Your task to perform on an android device: open app "Pinterest" Image 0: 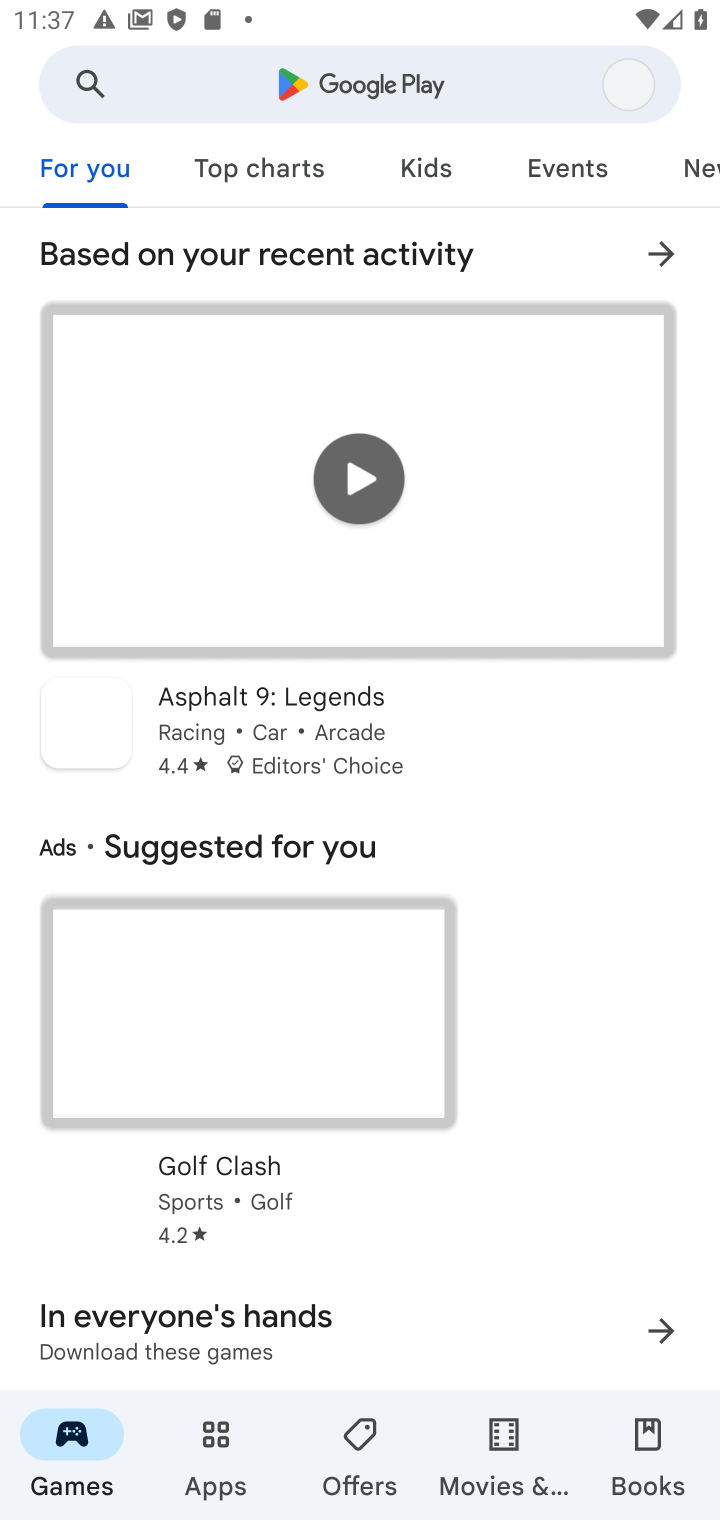
Step 0: click (380, 67)
Your task to perform on an android device: open app "Pinterest" Image 1: 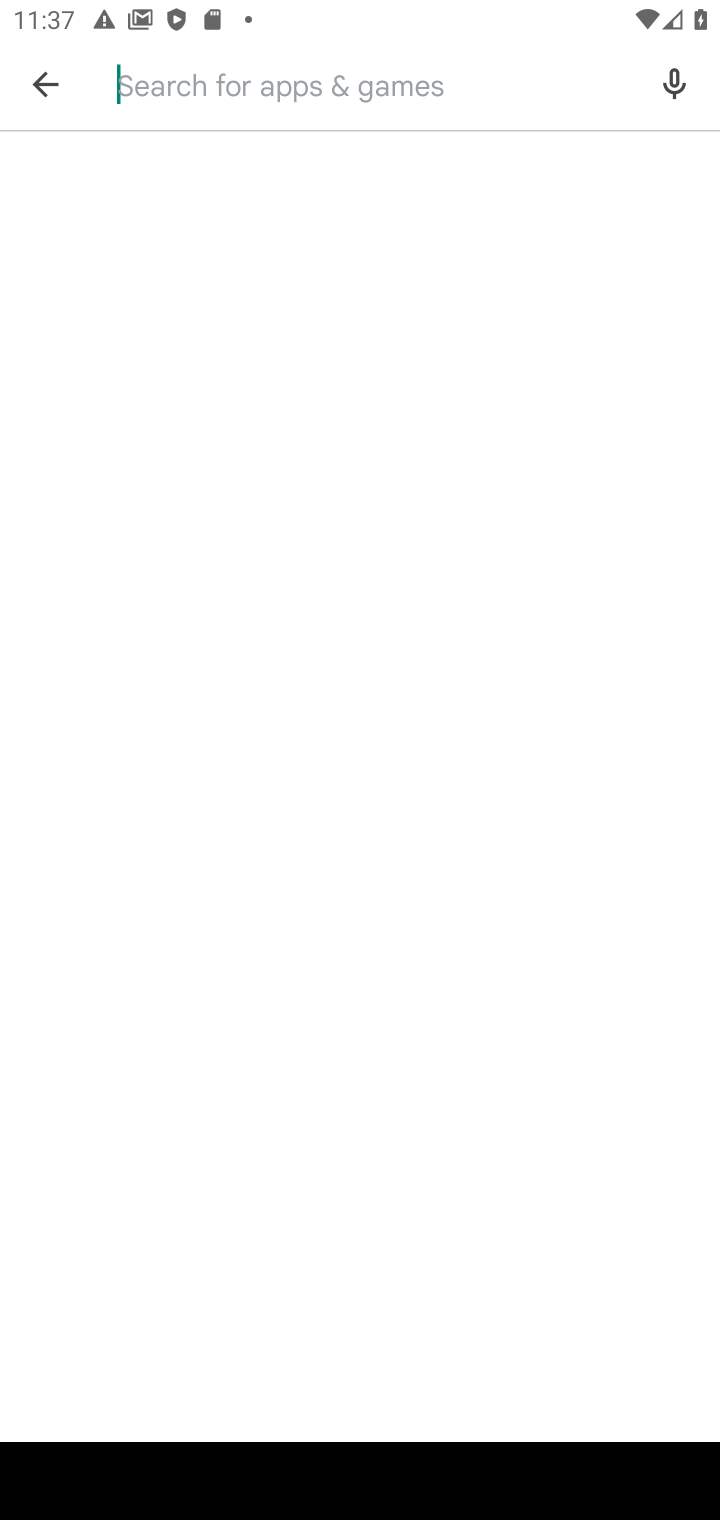
Step 1: click (358, 67)
Your task to perform on an android device: open app "Pinterest" Image 2: 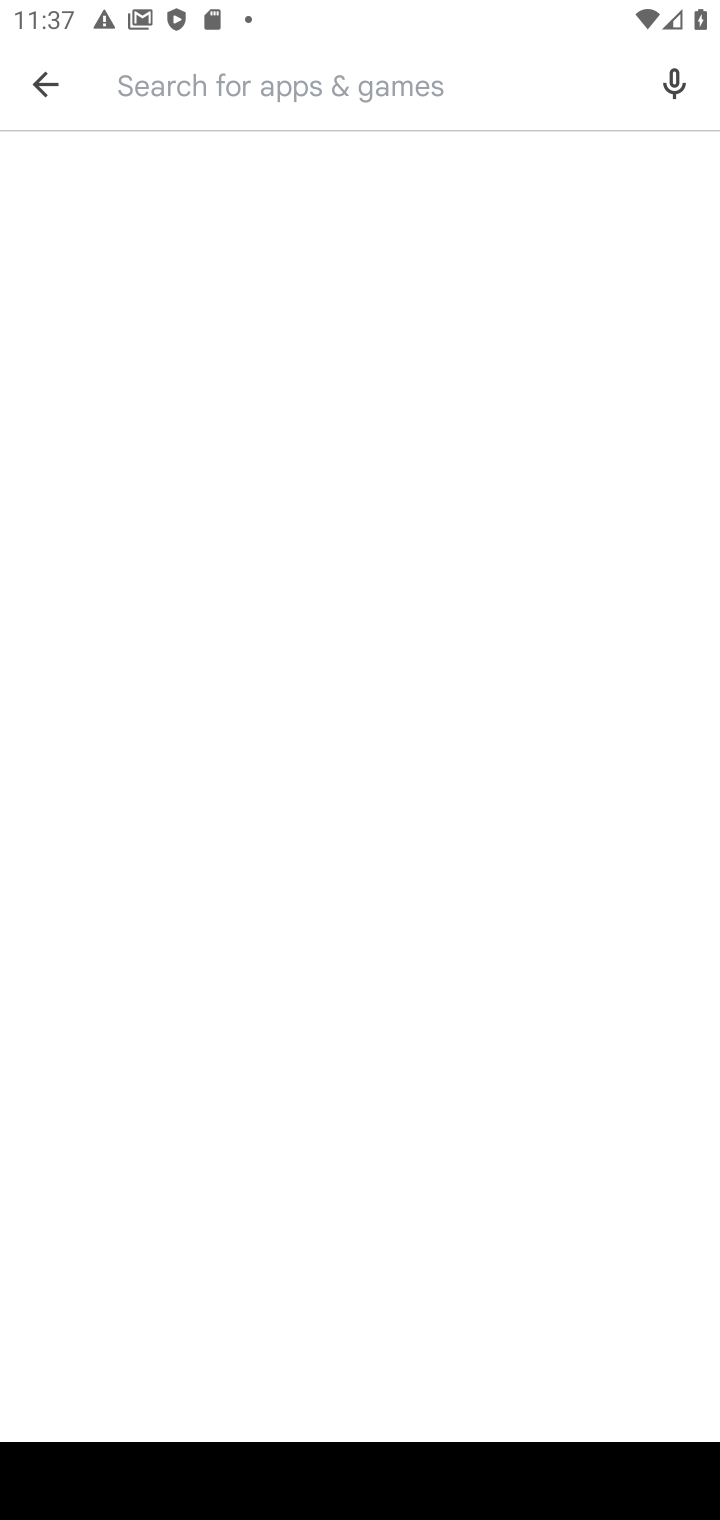
Step 2: click (278, 59)
Your task to perform on an android device: open app "Pinterest" Image 3: 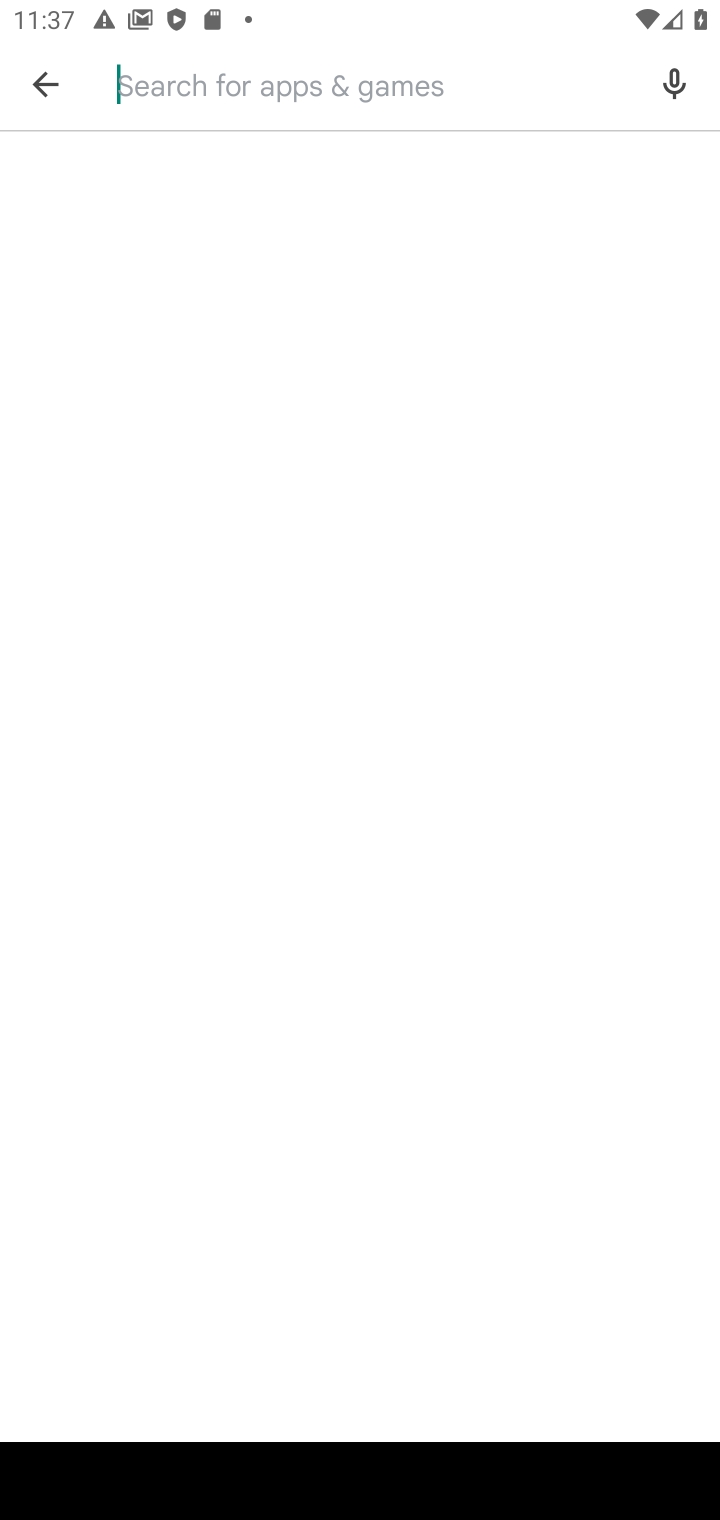
Step 3: type "Pinterest"
Your task to perform on an android device: open app "Pinterest" Image 4: 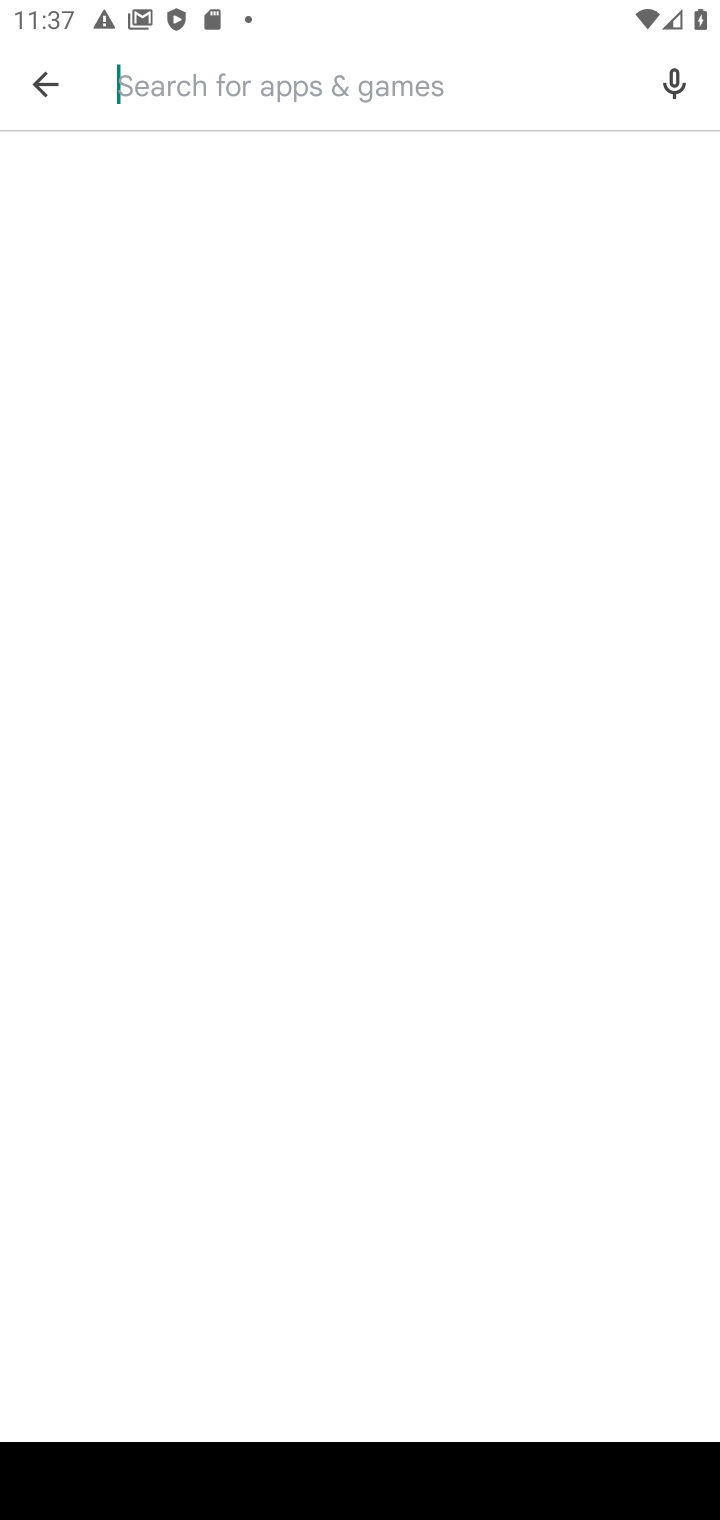
Step 4: click (311, 757)
Your task to perform on an android device: open app "Pinterest" Image 5: 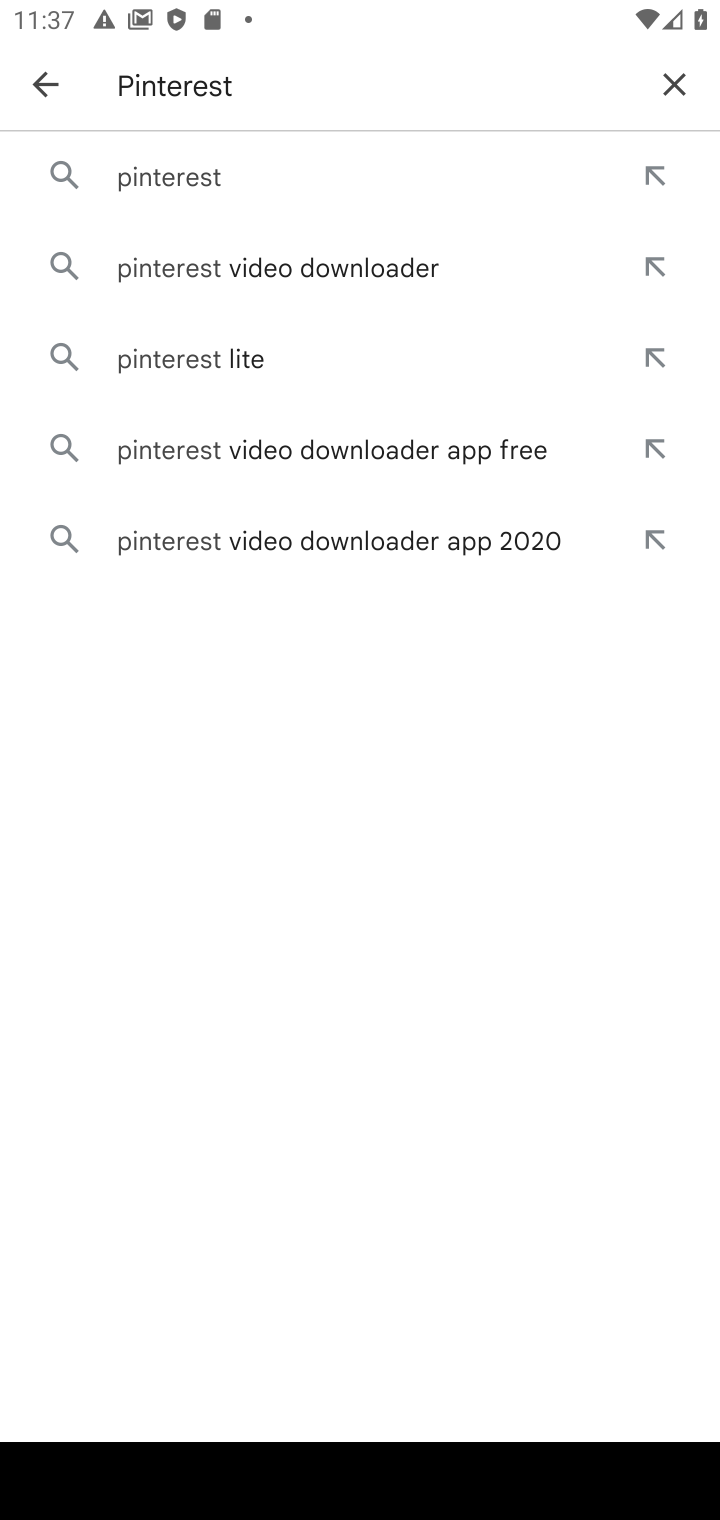
Step 5: click (210, 172)
Your task to perform on an android device: open app "Pinterest" Image 6: 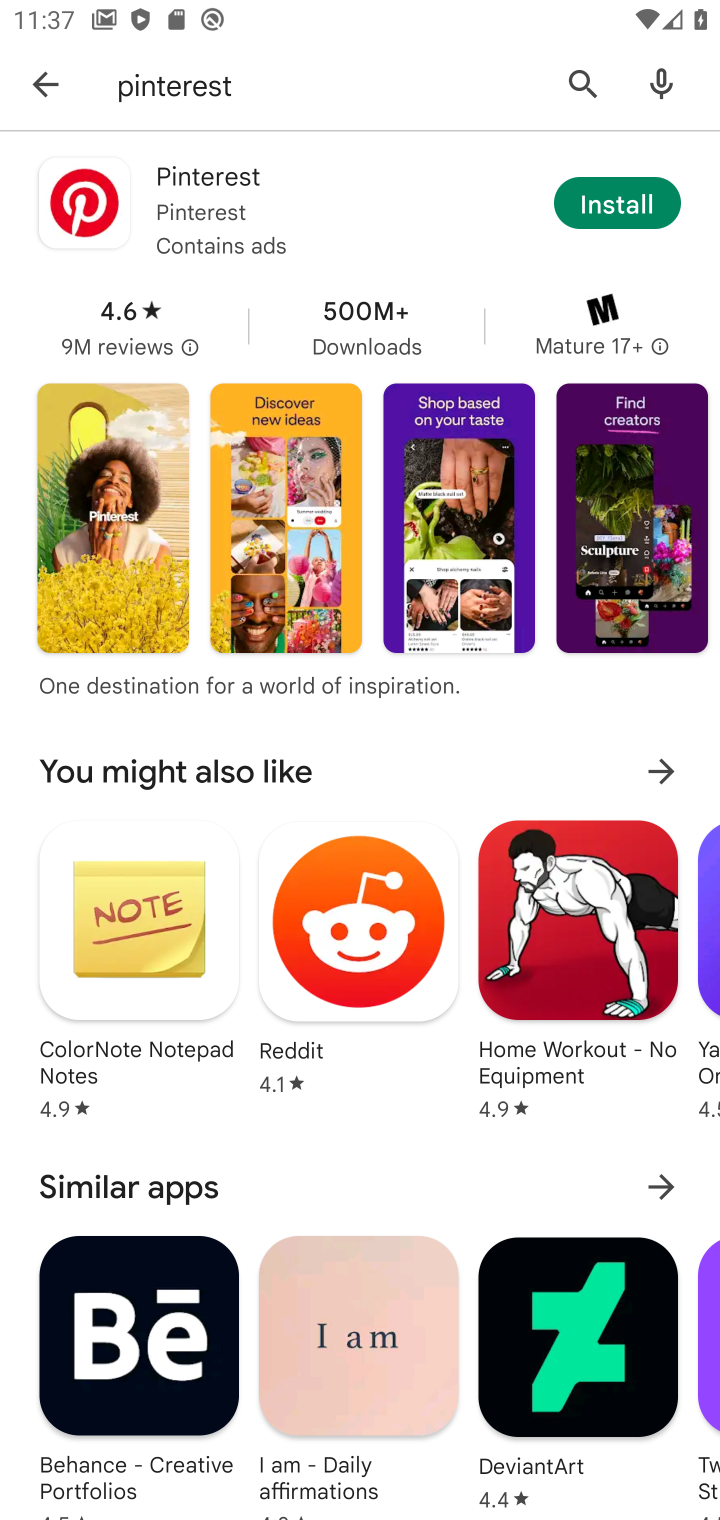
Step 6: task complete